Your task to perform on an android device: open the mobile data screen to see how much data has been used Image 0: 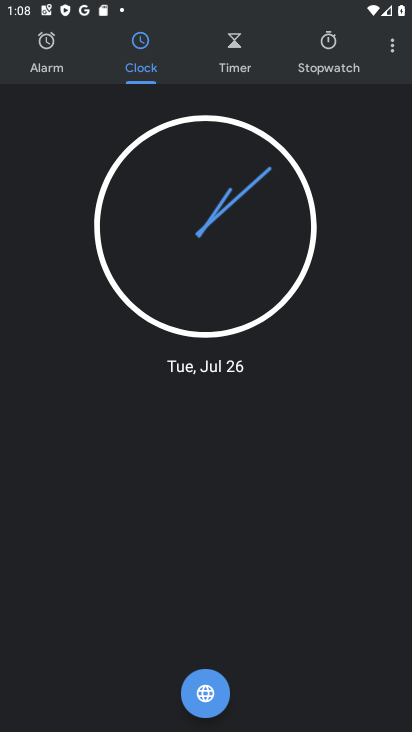
Step 0: press home button
Your task to perform on an android device: open the mobile data screen to see how much data has been used Image 1: 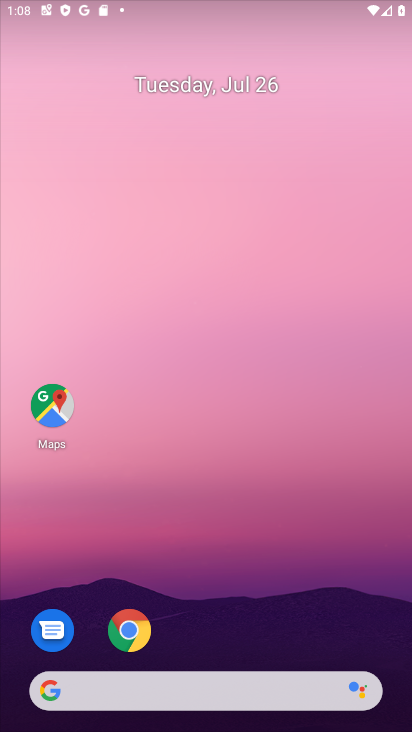
Step 1: drag from (223, 495) to (135, 4)
Your task to perform on an android device: open the mobile data screen to see how much data has been used Image 2: 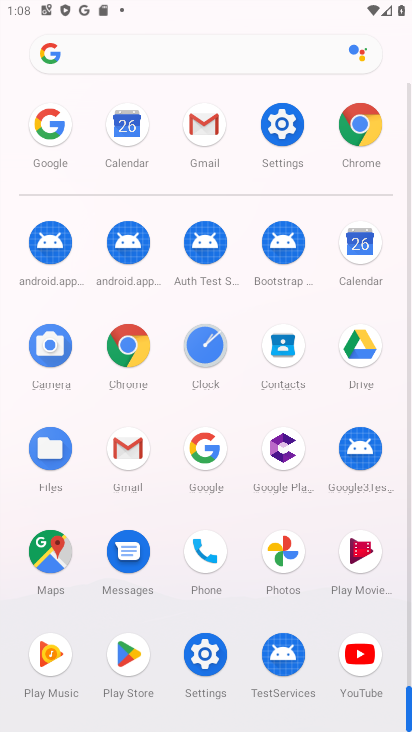
Step 2: click (284, 123)
Your task to perform on an android device: open the mobile data screen to see how much data has been used Image 3: 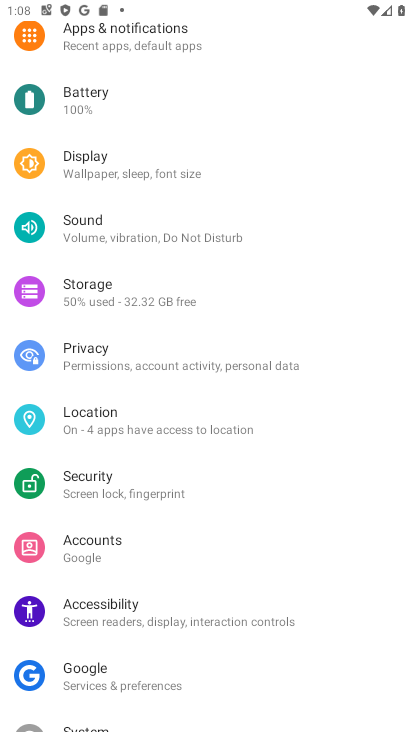
Step 3: drag from (153, 119) to (201, 679)
Your task to perform on an android device: open the mobile data screen to see how much data has been used Image 4: 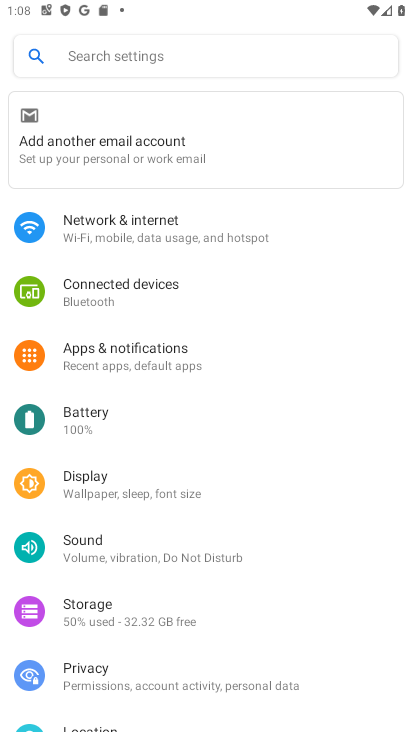
Step 4: drag from (201, 166) to (253, 731)
Your task to perform on an android device: open the mobile data screen to see how much data has been used Image 5: 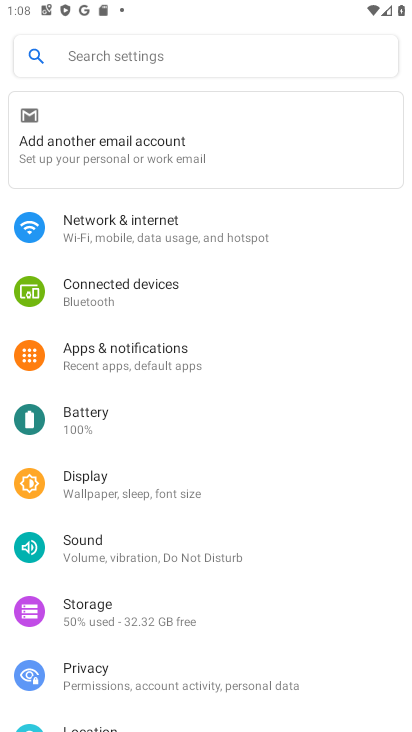
Step 5: click (131, 238)
Your task to perform on an android device: open the mobile data screen to see how much data has been used Image 6: 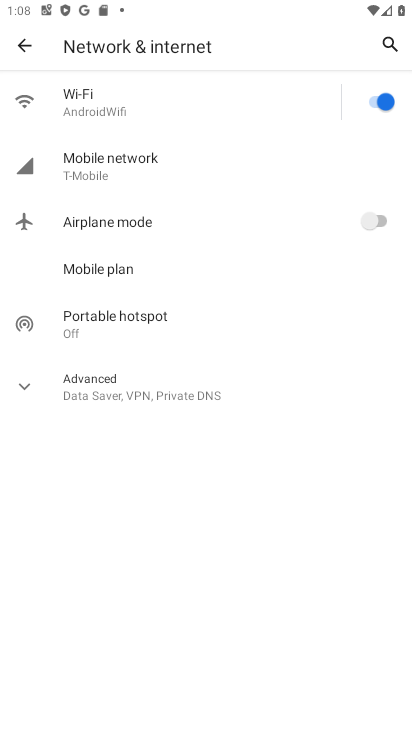
Step 6: click (100, 172)
Your task to perform on an android device: open the mobile data screen to see how much data has been used Image 7: 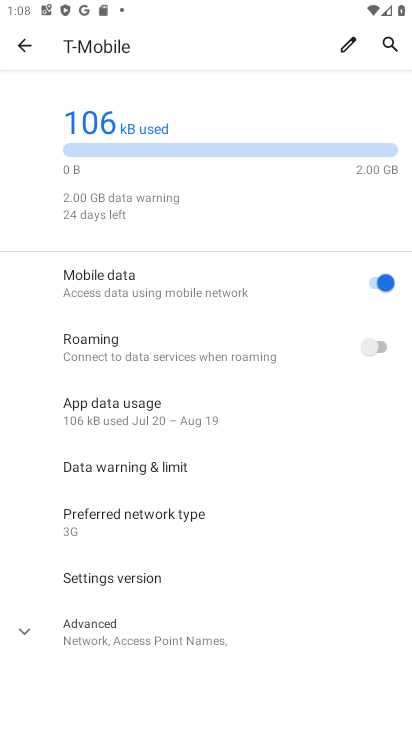
Step 7: task complete